Your task to perform on an android device: Open Chrome and go to the settings page Image 0: 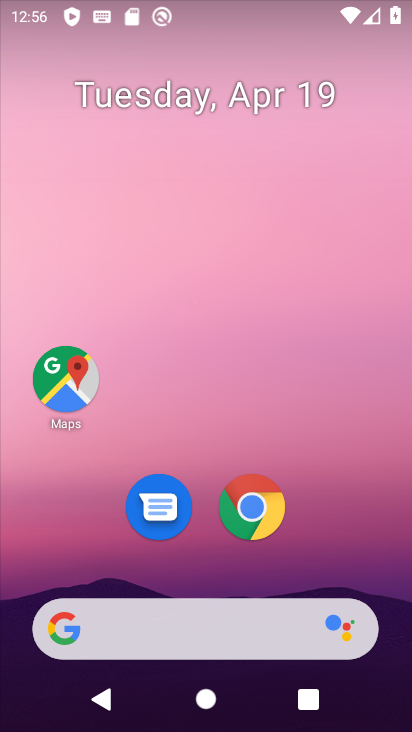
Step 0: click (250, 499)
Your task to perform on an android device: Open Chrome and go to the settings page Image 1: 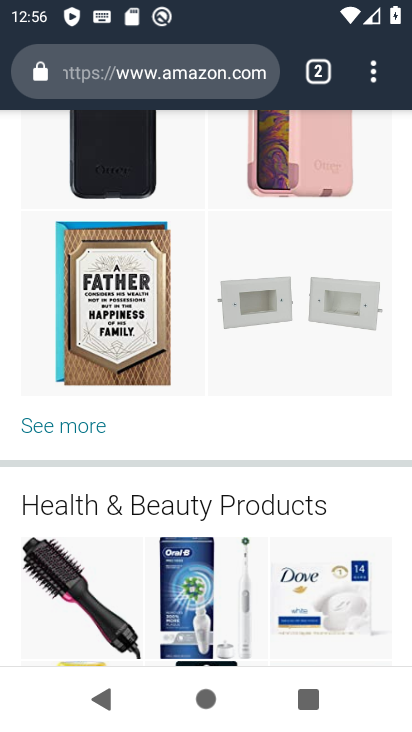
Step 1: click (371, 63)
Your task to perform on an android device: Open Chrome and go to the settings page Image 2: 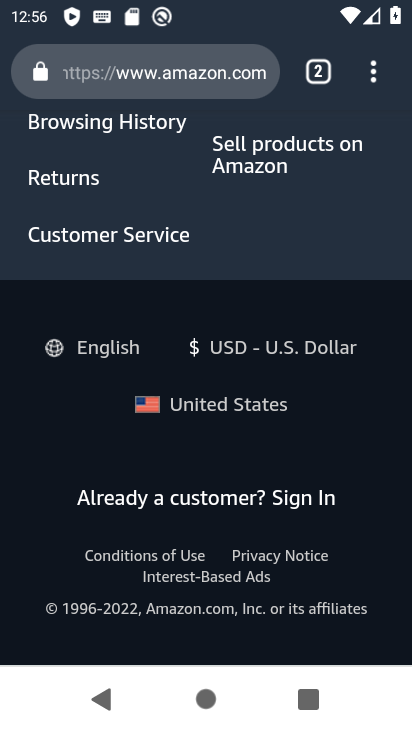
Step 2: click (368, 74)
Your task to perform on an android device: Open Chrome and go to the settings page Image 3: 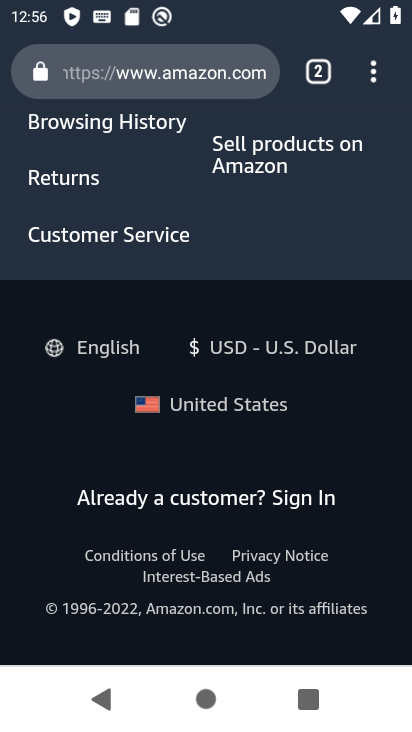
Step 3: click (367, 74)
Your task to perform on an android device: Open Chrome and go to the settings page Image 4: 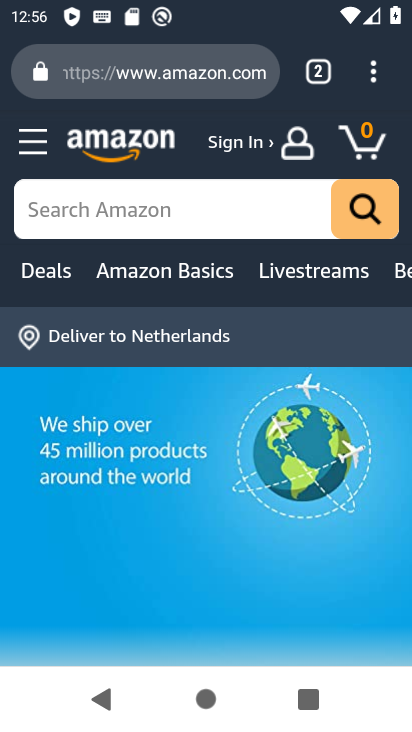
Step 4: click (367, 74)
Your task to perform on an android device: Open Chrome and go to the settings page Image 5: 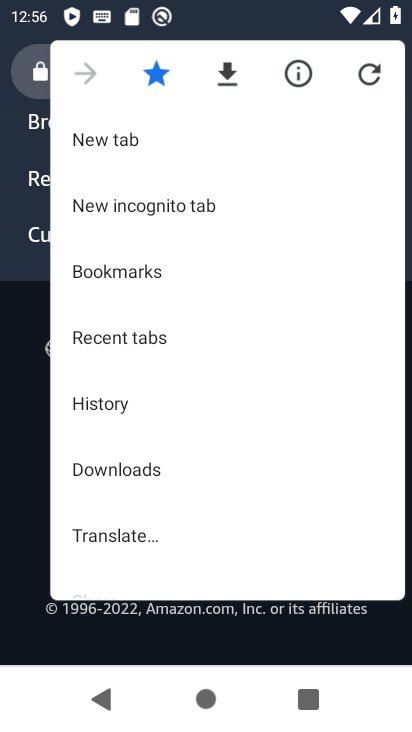
Step 5: drag from (186, 530) to (234, 48)
Your task to perform on an android device: Open Chrome and go to the settings page Image 6: 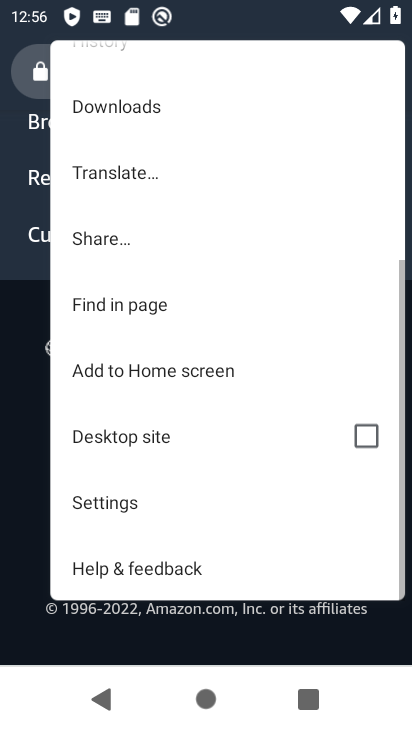
Step 6: click (152, 503)
Your task to perform on an android device: Open Chrome and go to the settings page Image 7: 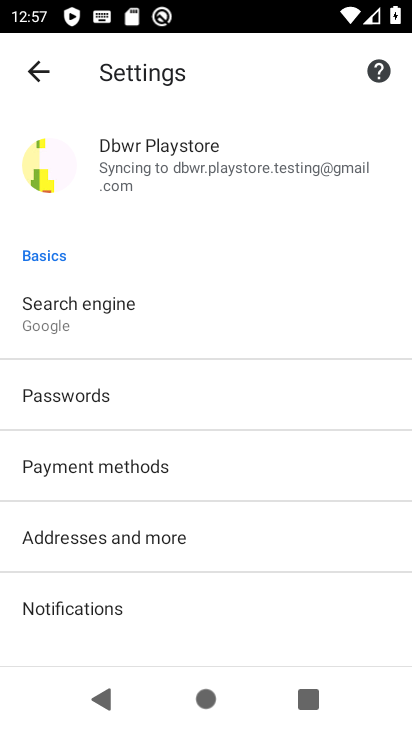
Step 7: task complete